Your task to perform on an android device: Go to ESPN.com Image 0: 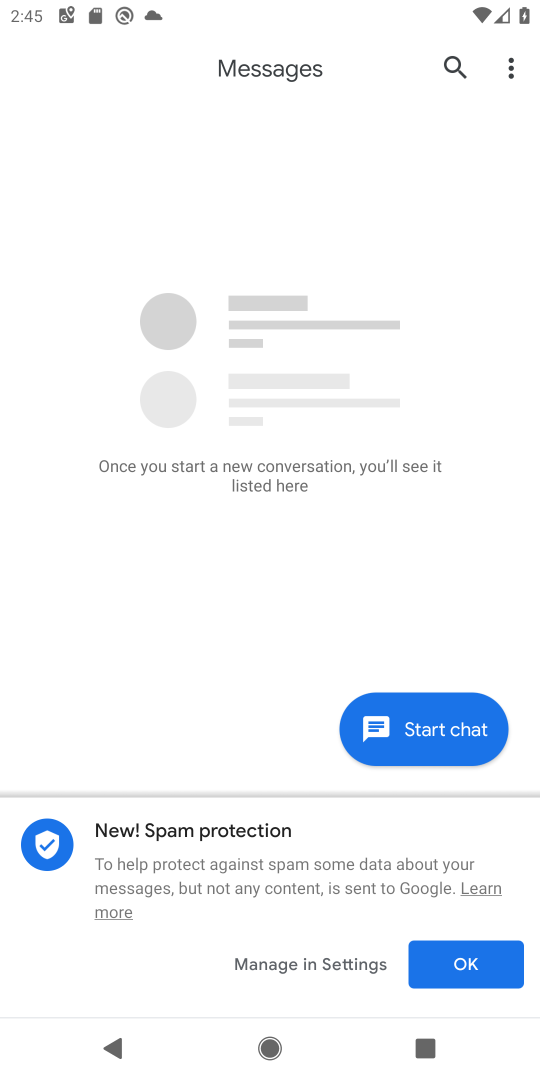
Step 0: press home button
Your task to perform on an android device: Go to ESPN.com Image 1: 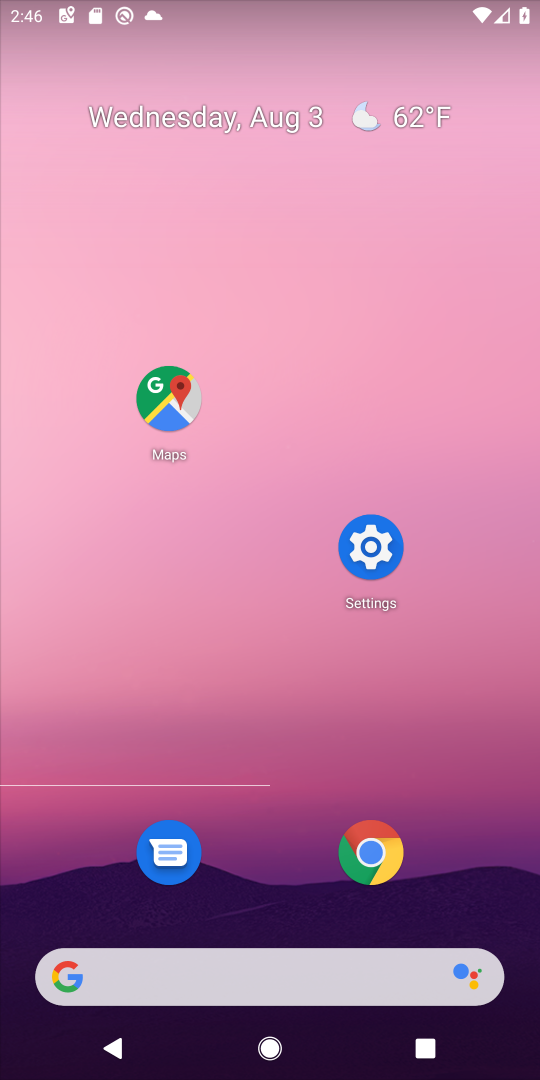
Step 1: click (367, 853)
Your task to perform on an android device: Go to ESPN.com Image 2: 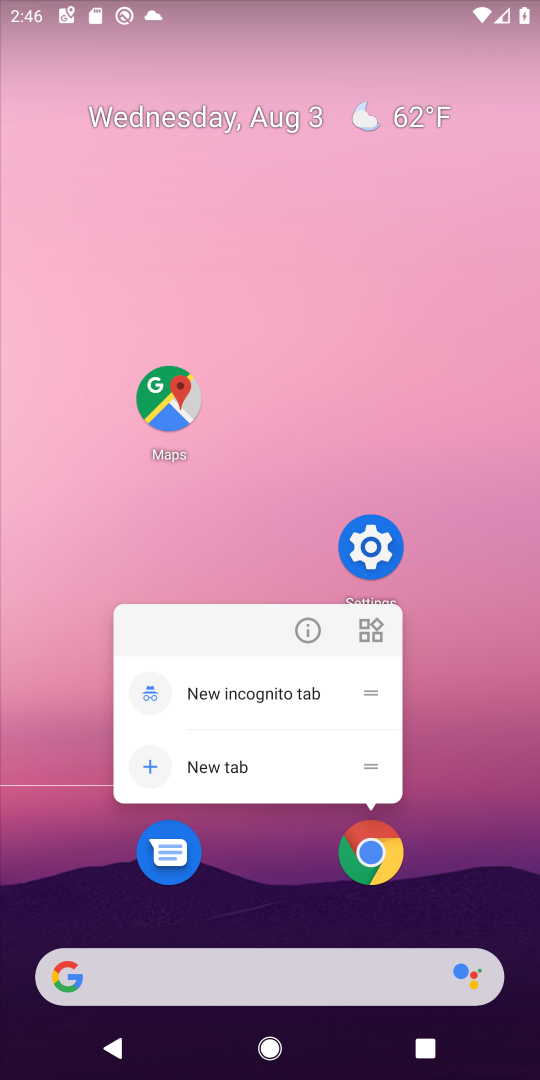
Step 2: click (367, 852)
Your task to perform on an android device: Go to ESPN.com Image 3: 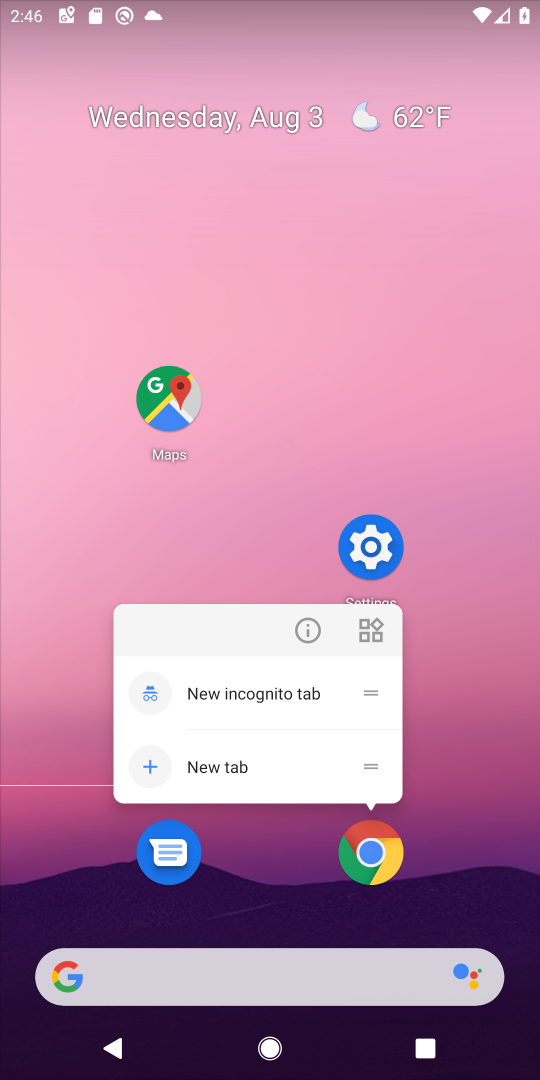
Step 3: click (367, 853)
Your task to perform on an android device: Go to ESPN.com Image 4: 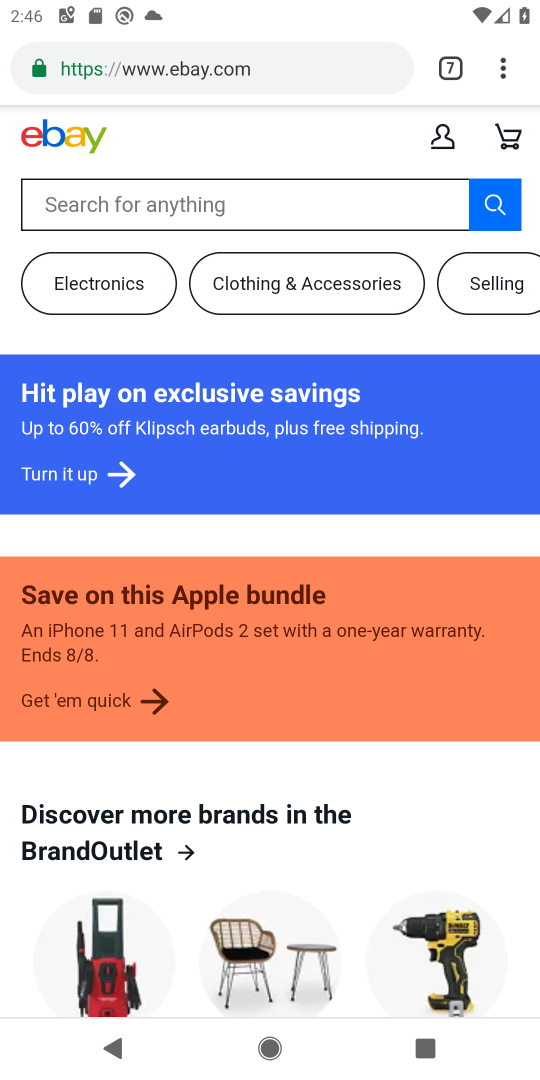
Step 4: drag from (497, 70) to (285, 211)
Your task to perform on an android device: Go to ESPN.com Image 5: 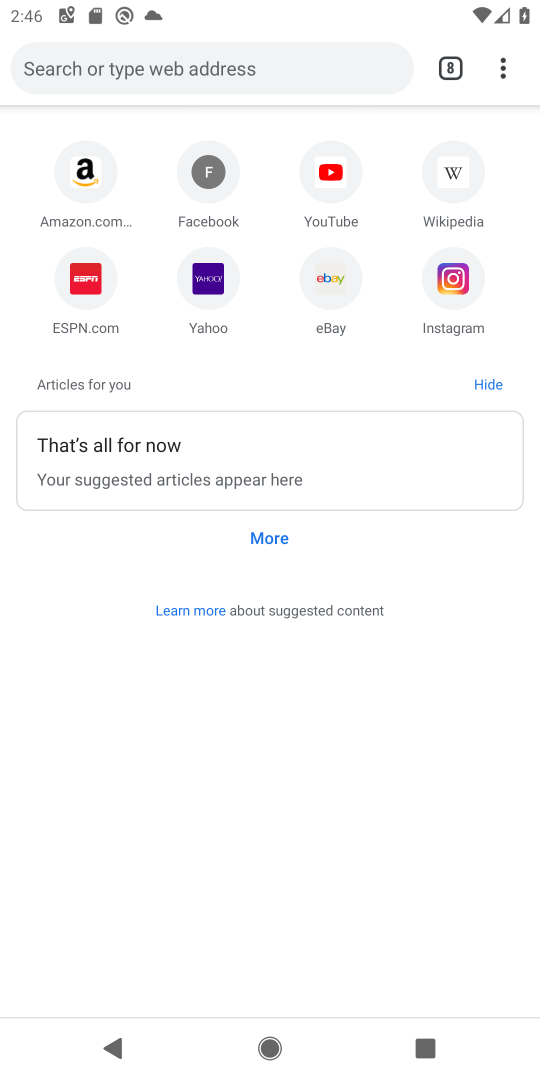
Step 5: click (89, 289)
Your task to perform on an android device: Go to ESPN.com Image 6: 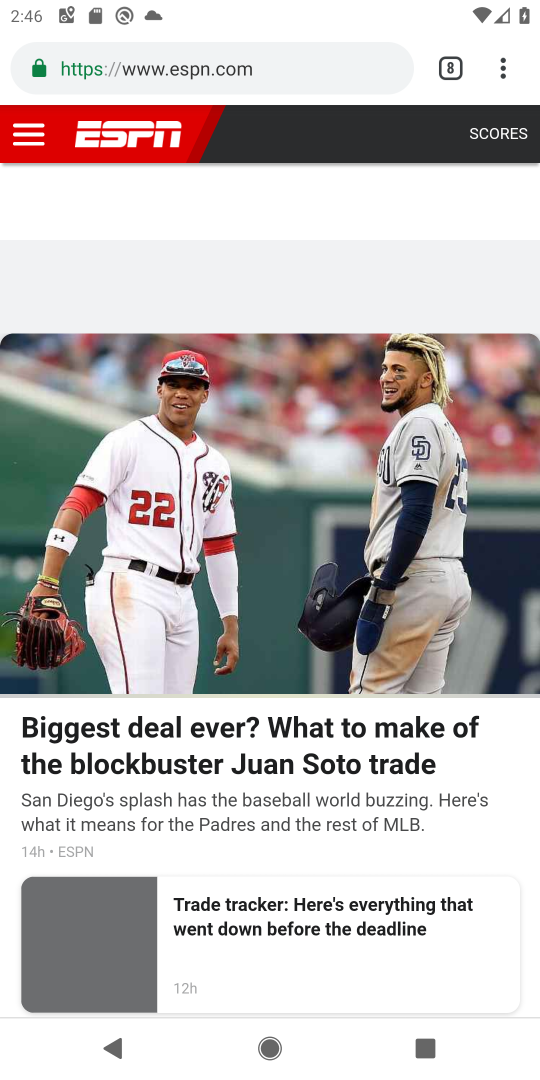
Step 6: task complete